Your task to perform on an android device: When is my next meeting? Image 0: 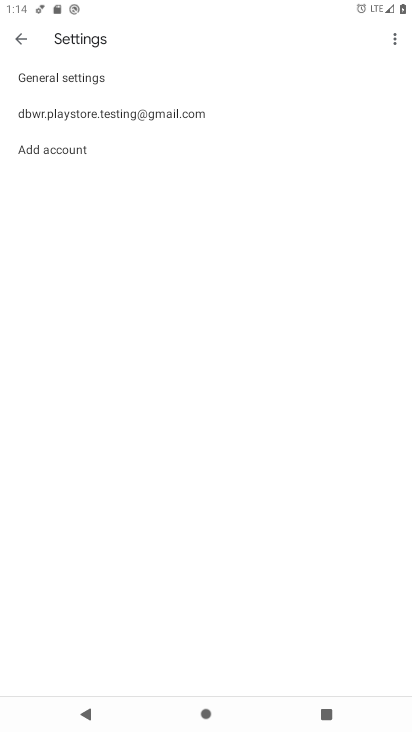
Step 0: press home button
Your task to perform on an android device: When is my next meeting? Image 1: 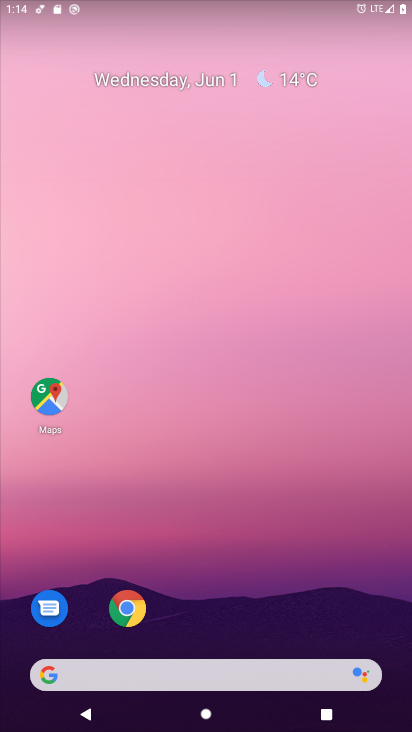
Step 1: drag from (190, 627) to (258, 20)
Your task to perform on an android device: When is my next meeting? Image 2: 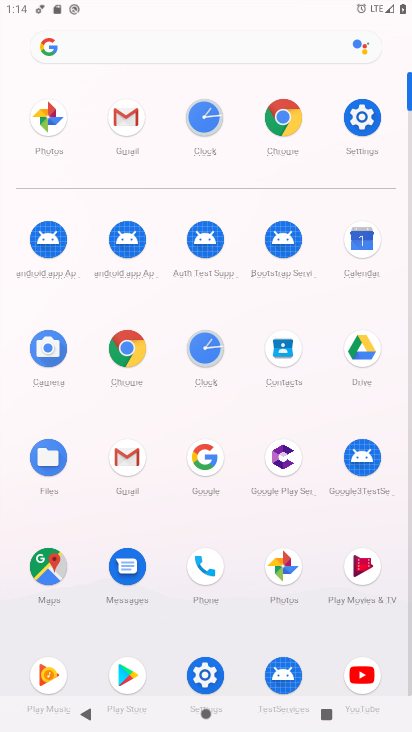
Step 2: click (360, 249)
Your task to perform on an android device: When is my next meeting? Image 3: 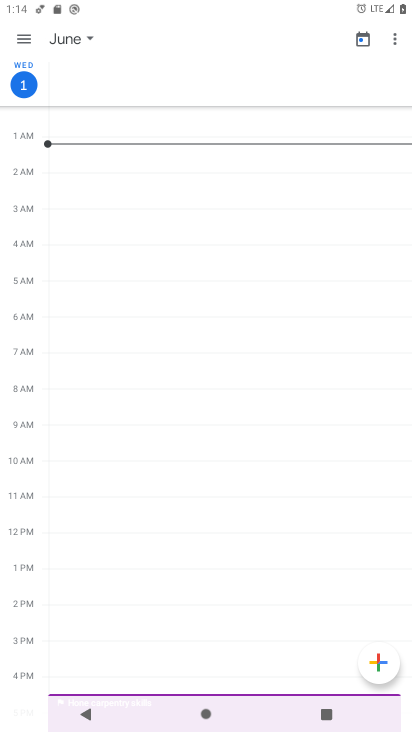
Step 3: click (24, 37)
Your task to perform on an android device: When is my next meeting? Image 4: 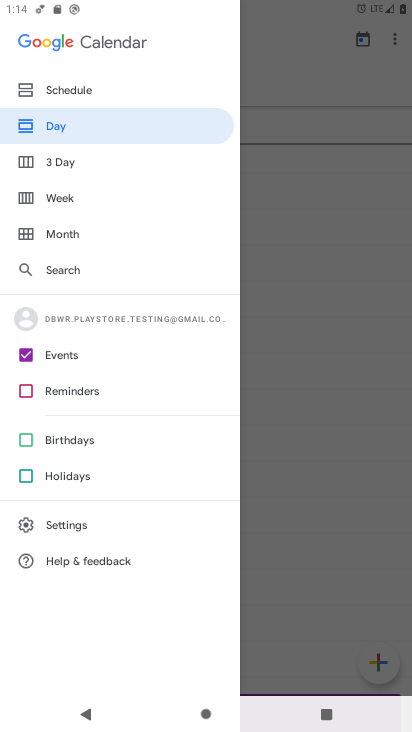
Step 4: click (50, 388)
Your task to perform on an android device: When is my next meeting? Image 5: 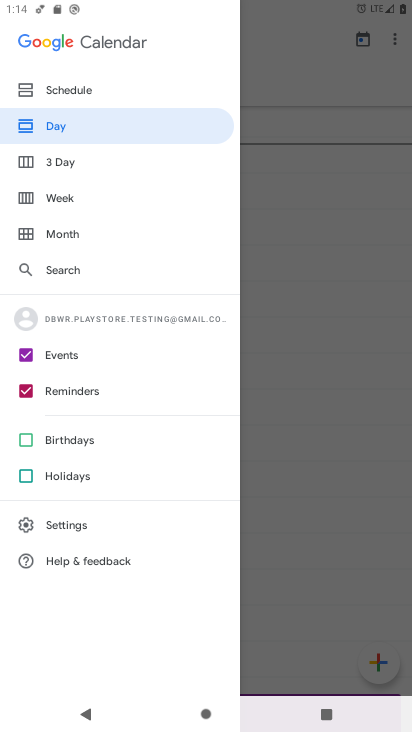
Step 5: click (77, 89)
Your task to perform on an android device: When is my next meeting? Image 6: 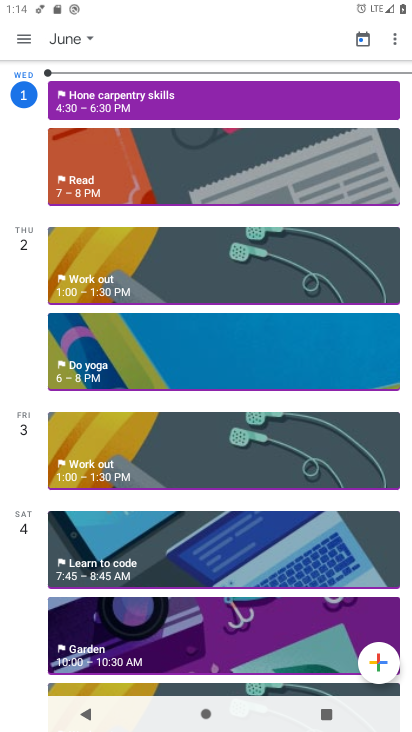
Step 6: drag from (178, 598) to (227, 198)
Your task to perform on an android device: When is my next meeting? Image 7: 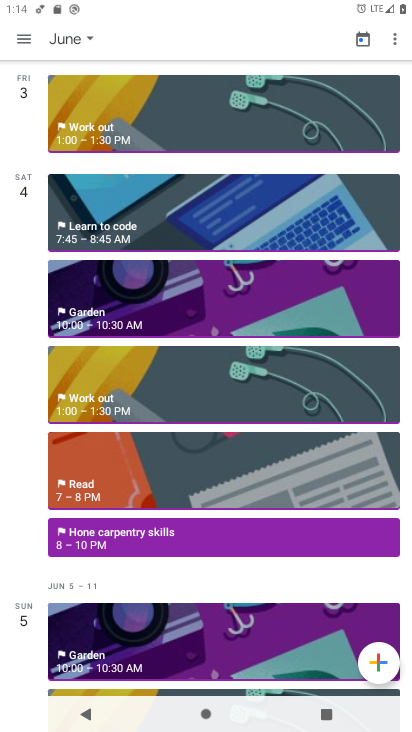
Step 7: drag from (165, 596) to (200, 254)
Your task to perform on an android device: When is my next meeting? Image 8: 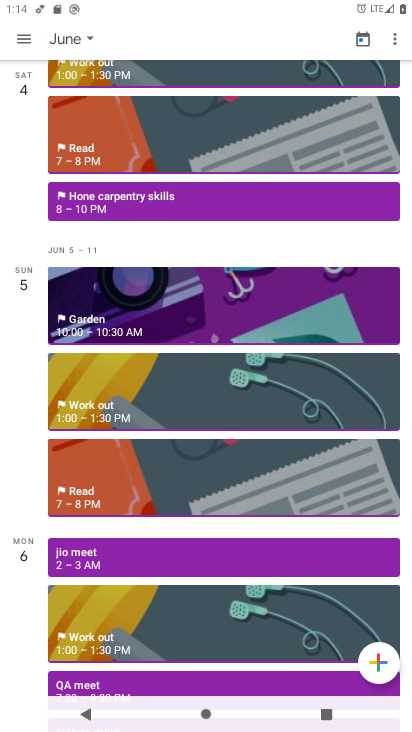
Step 8: click (130, 556)
Your task to perform on an android device: When is my next meeting? Image 9: 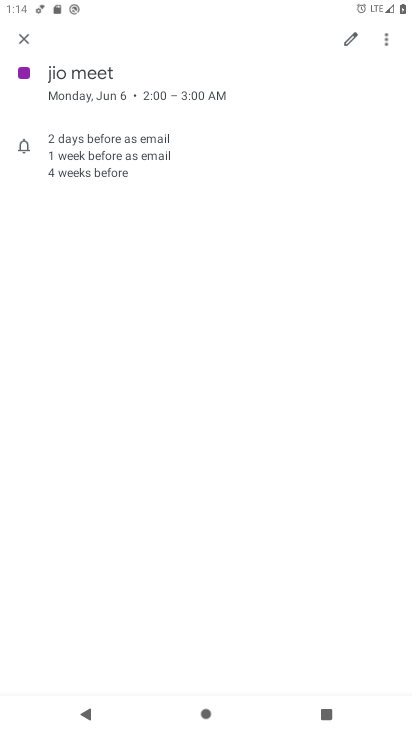
Step 9: task complete